Your task to perform on an android device: turn notification dots on Image 0: 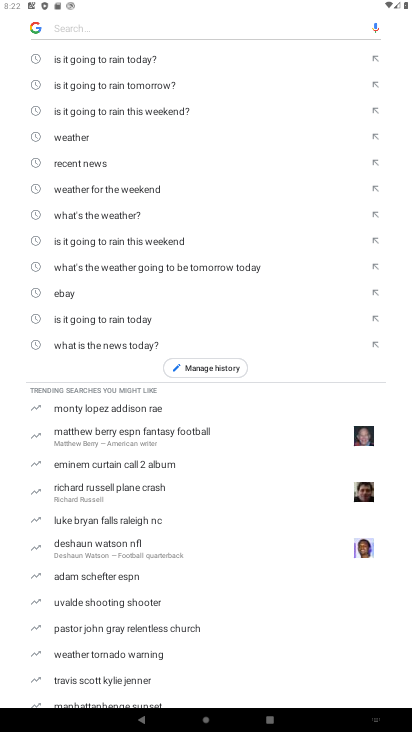
Step 0: press home button
Your task to perform on an android device: turn notification dots on Image 1: 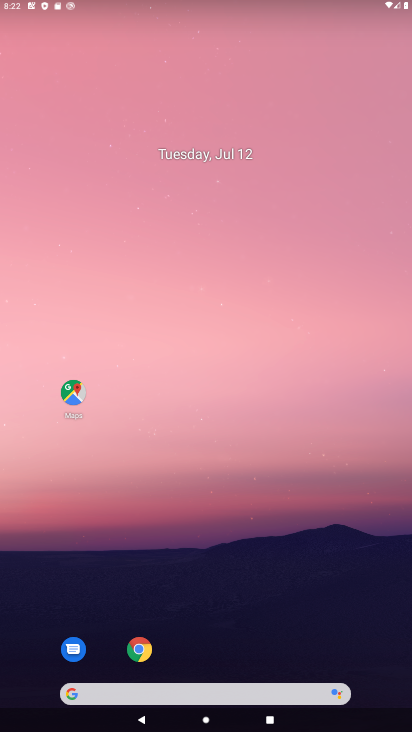
Step 1: drag from (212, 555) to (244, 57)
Your task to perform on an android device: turn notification dots on Image 2: 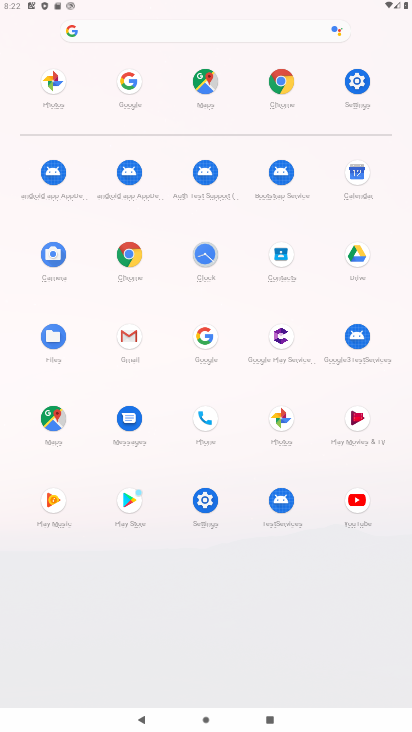
Step 2: click (359, 80)
Your task to perform on an android device: turn notification dots on Image 3: 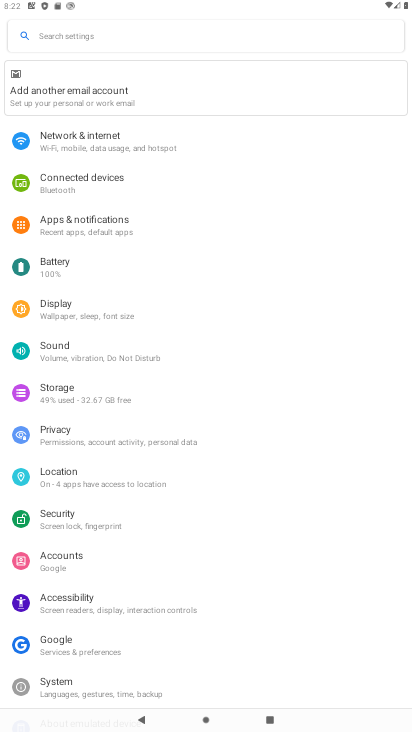
Step 3: click (77, 218)
Your task to perform on an android device: turn notification dots on Image 4: 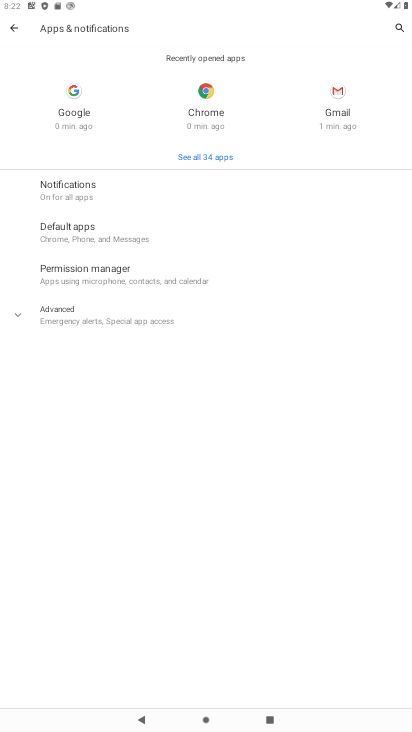
Step 4: click (83, 303)
Your task to perform on an android device: turn notification dots on Image 5: 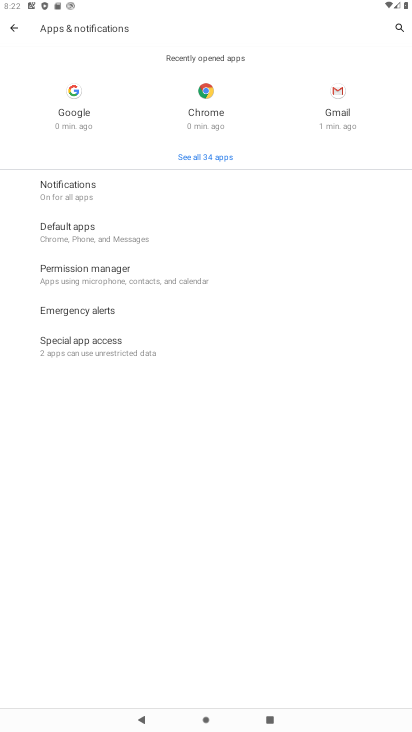
Step 5: click (102, 182)
Your task to perform on an android device: turn notification dots on Image 6: 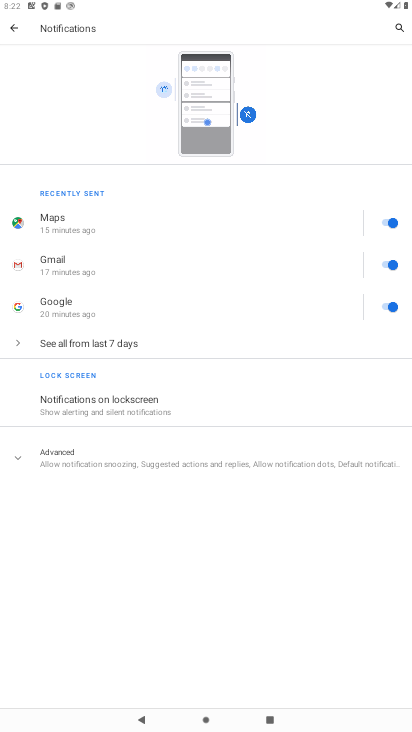
Step 6: click (73, 455)
Your task to perform on an android device: turn notification dots on Image 7: 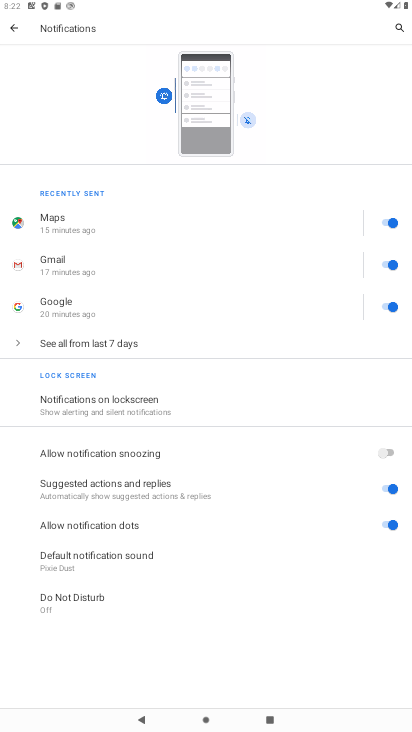
Step 7: task complete